Your task to perform on an android device: refresh tabs in the chrome app Image 0: 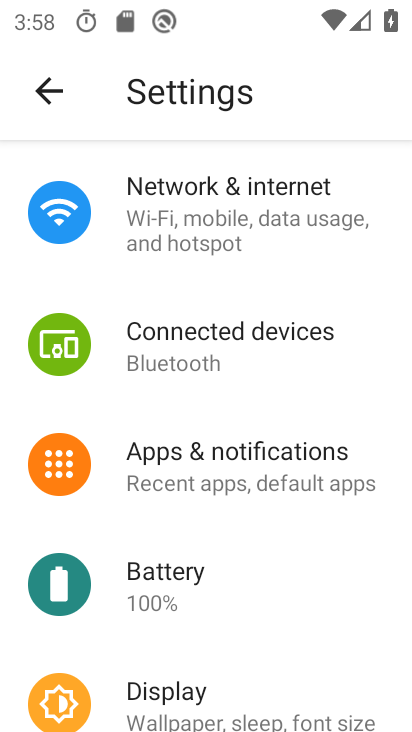
Step 0: press home button
Your task to perform on an android device: refresh tabs in the chrome app Image 1: 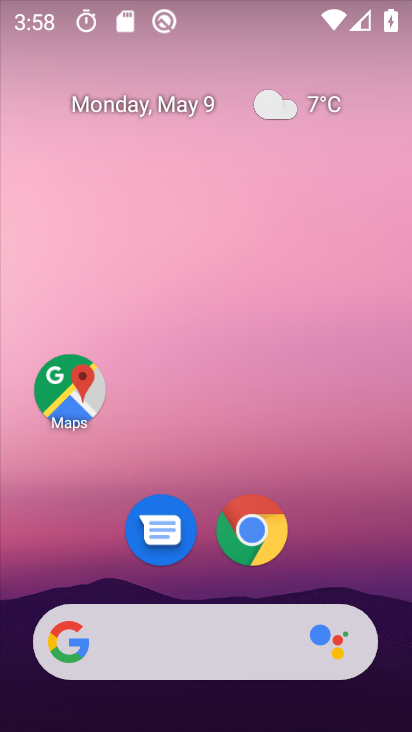
Step 1: click (277, 529)
Your task to perform on an android device: refresh tabs in the chrome app Image 2: 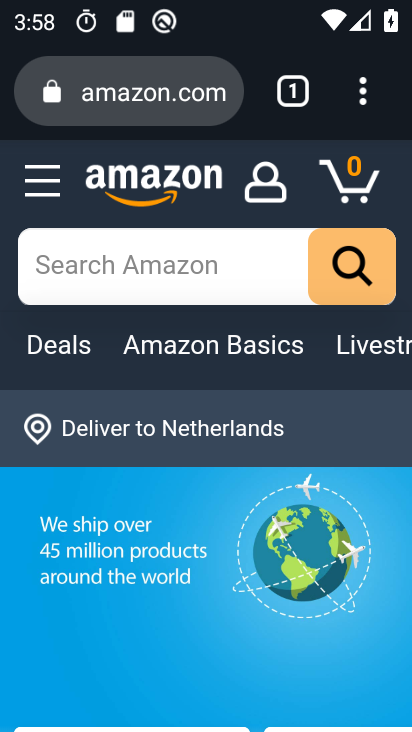
Step 2: task complete